Your task to perform on an android device: check android version Image 0: 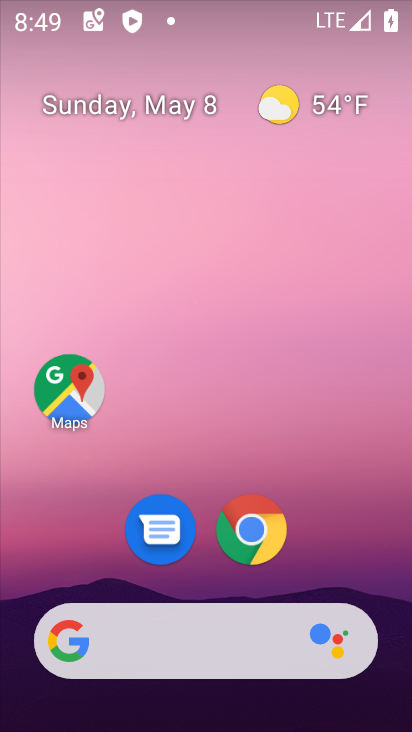
Step 0: drag from (361, 573) to (289, 154)
Your task to perform on an android device: check android version Image 1: 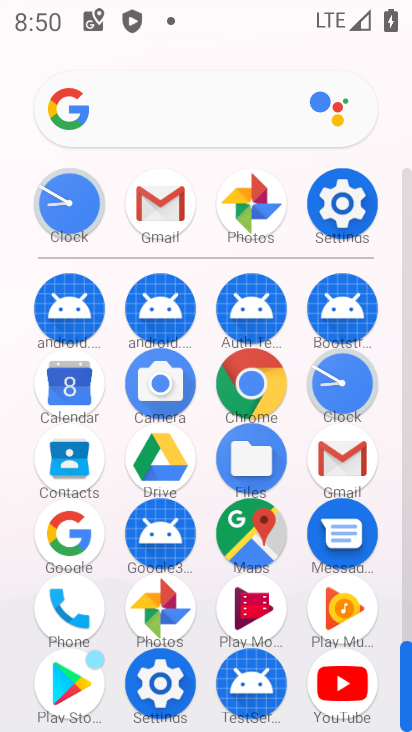
Step 1: drag from (377, 582) to (364, 267)
Your task to perform on an android device: check android version Image 2: 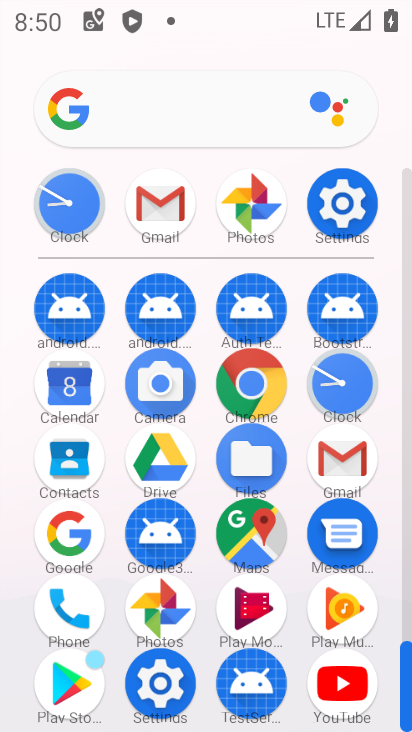
Step 2: click (157, 711)
Your task to perform on an android device: check android version Image 3: 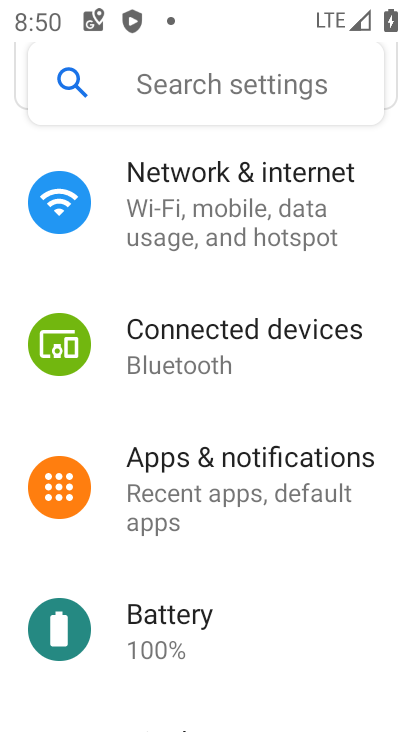
Step 3: drag from (364, 635) to (332, 271)
Your task to perform on an android device: check android version Image 4: 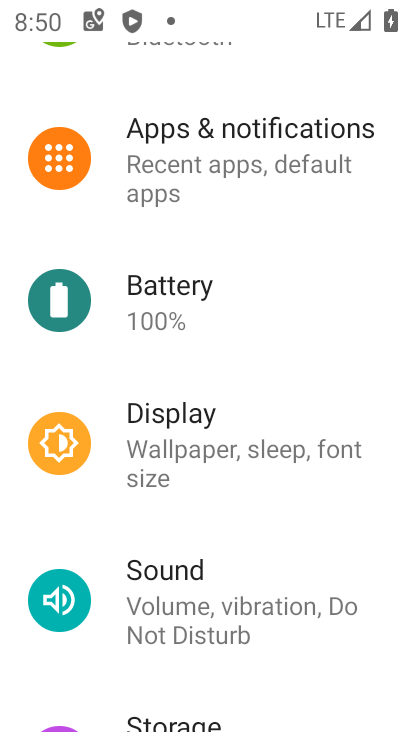
Step 4: drag from (312, 712) to (239, 285)
Your task to perform on an android device: check android version Image 5: 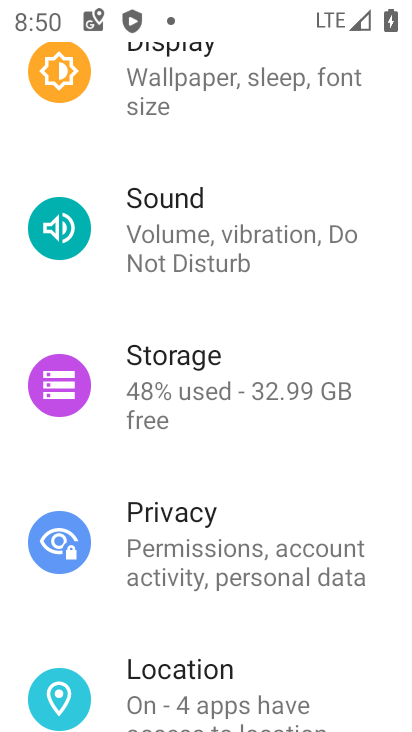
Step 5: drag from (318, 621) to (249, 308)
Your task to perform on an android device: check android version Image 6: 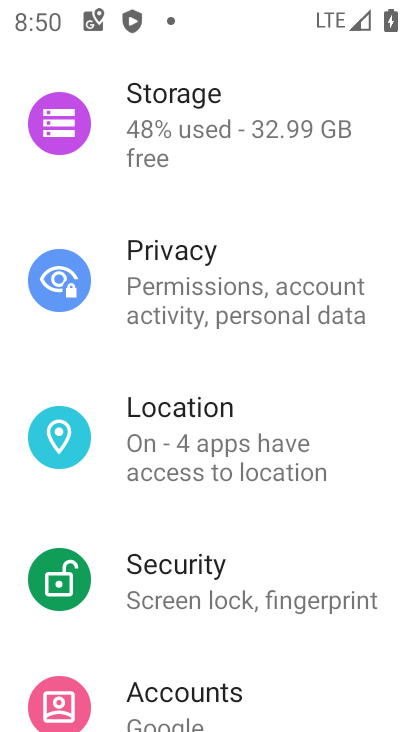
Step 6: drag from (284, 699) to (275, 489)
Your task to perform on an android device: check android version Image 7: 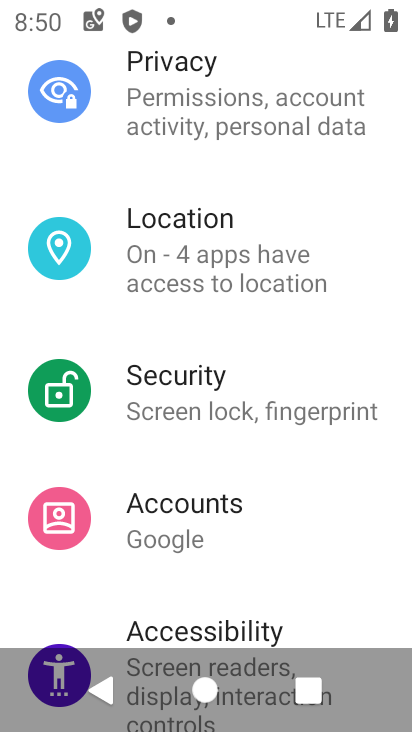
Step 7: drag from (276, 516) to (278, 144)
Your task to perform on an android device: check android version Image 8: 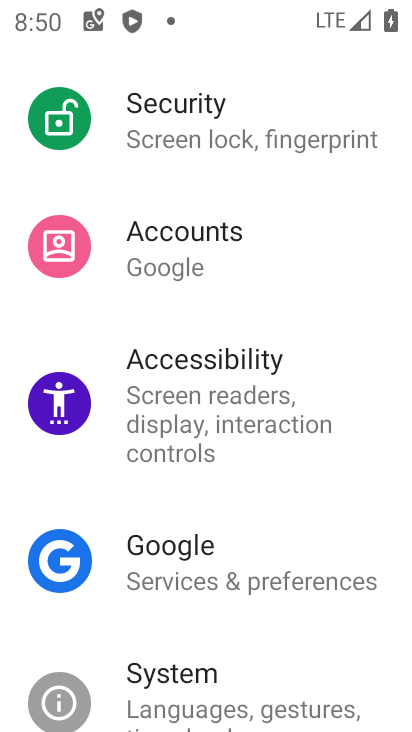
Step 8: drag from (230, 620) to (232, 231)
Your task to perform on an android device: check android version Image 9: 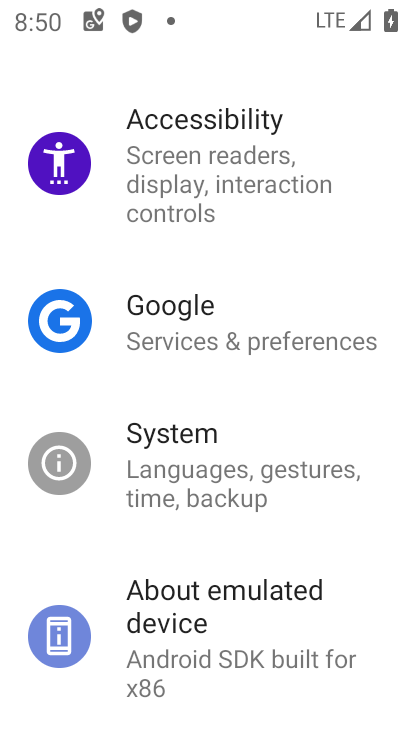
Step 9: click (277, 597)
Your task to perform on an android device: check android version Image 10: 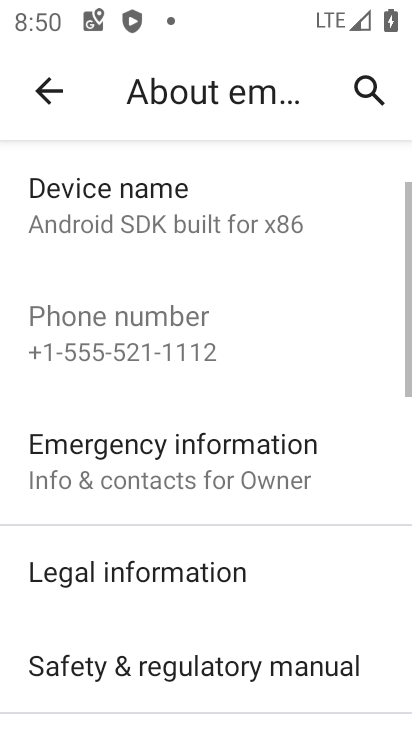
Step 10: drag from (301, 618) to (325, 302)
Your task to perform on an android device: check android version Image 11: 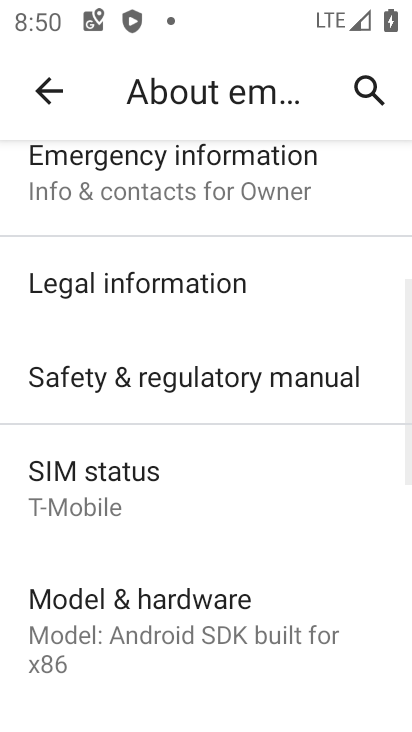
Step 11: drag from (335, 636) to (339, 308)
Your task to perform on an android device: check android version Image 12: 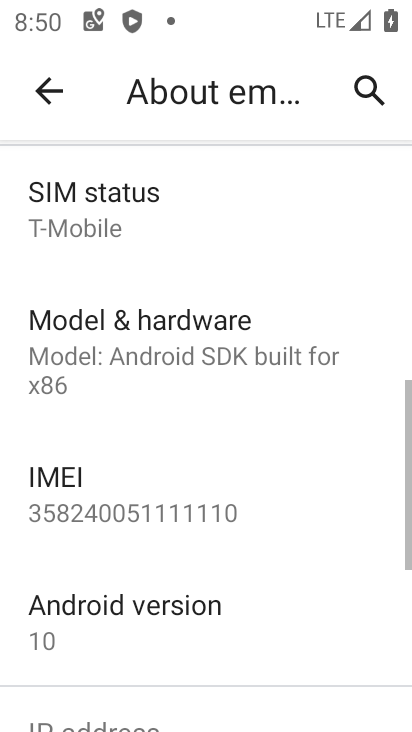
Step 12: click (227, 614)
Your task to perform on an android device: check android version Image 13: 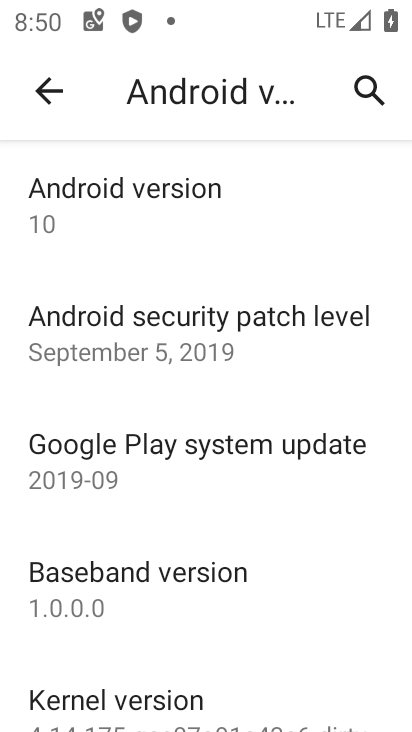
Step 13: task complete